Your task to perform on an android device: Open Google Chrome Image 0: 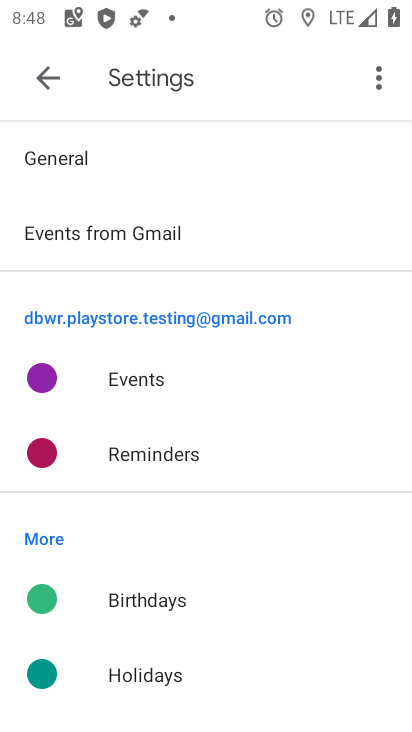
Step 0: press home button
Your task to perform on an android device: Open Google Chrome Image 1: 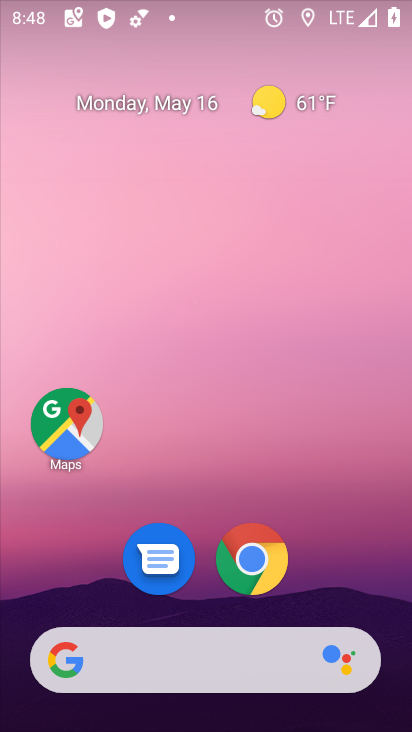
Step 1: drag from (344, 560) to (403, 151)
Your task to perform on an android device: Open Google Chrome Image 2: 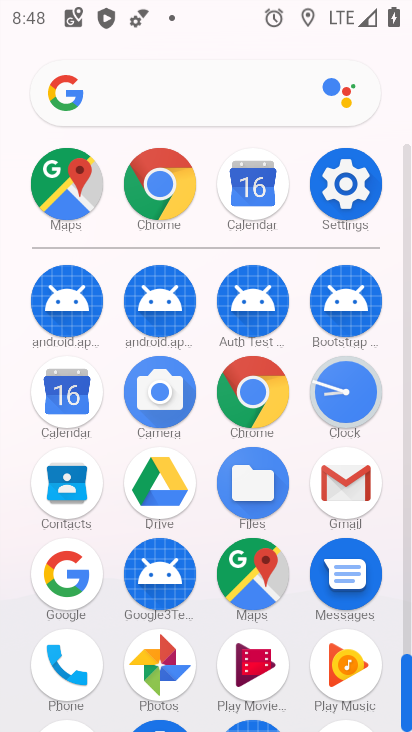
Step 2: click (232, 382)
Your task to perform on an android device: Open Google Chrome Image 3: 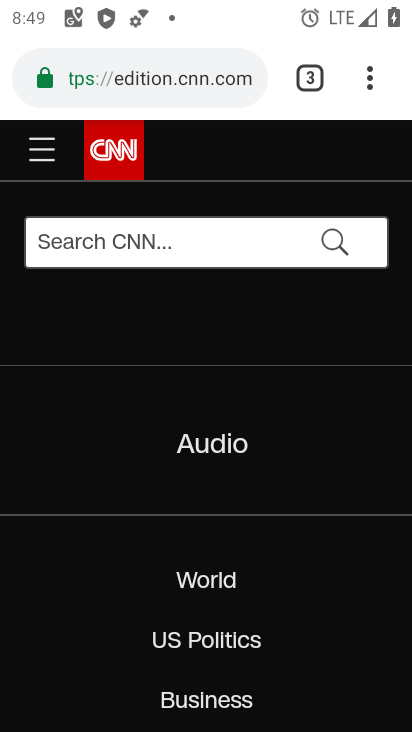
Step 3: task complete